Your task to perform on an android device: Go to wifi settings Image 0: 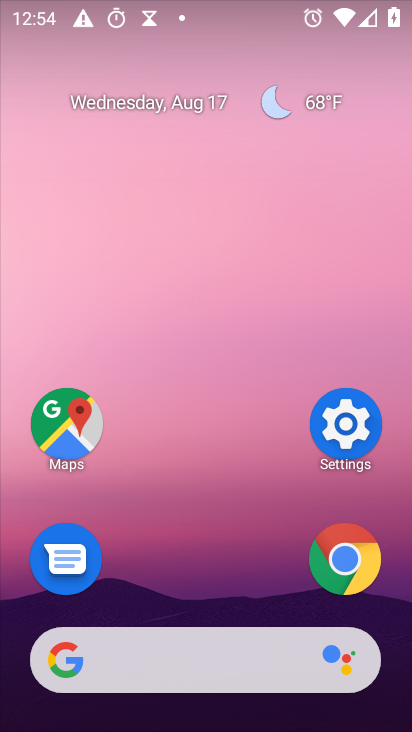
Step 0: click (354, 426)
Your task to perform on an android device: Go to wifi settings Image 1: 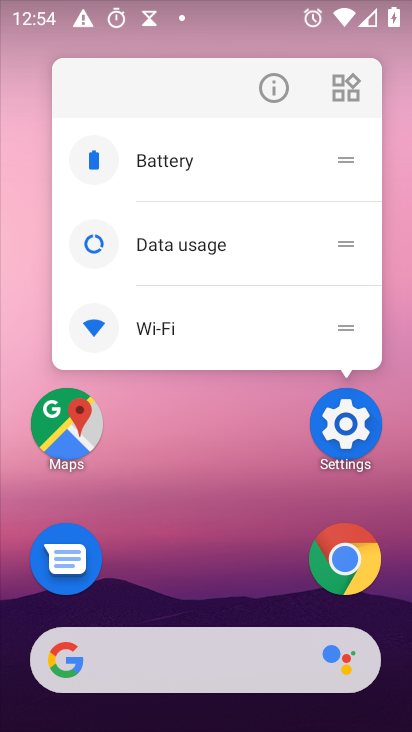
Step 1: click (340, 422)
Your task to perform on an android device: Go to wifi settings Image 2: 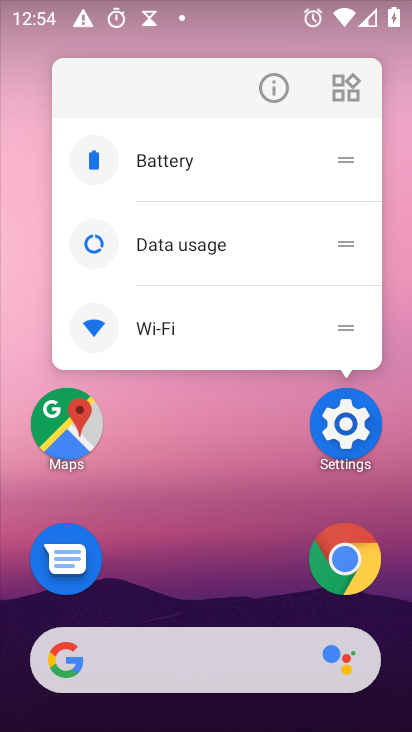
Step 2: click (355, 426)
Your task to perform on an android device: Go to wifi settings Image 3: 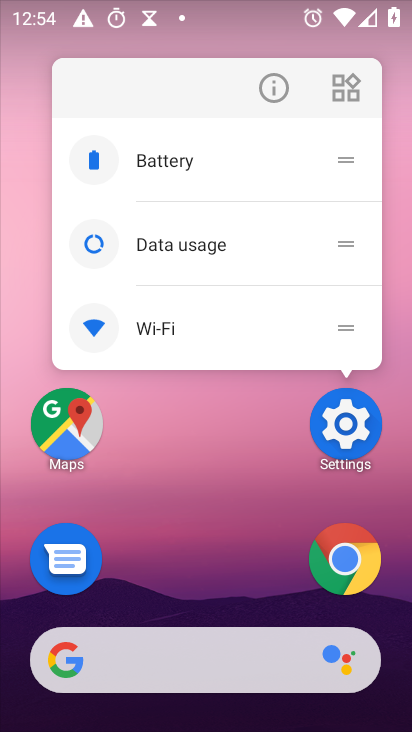
Step 3: click (355, 429)
Your task to perform on an android device: Go to wifi settings Image 4: 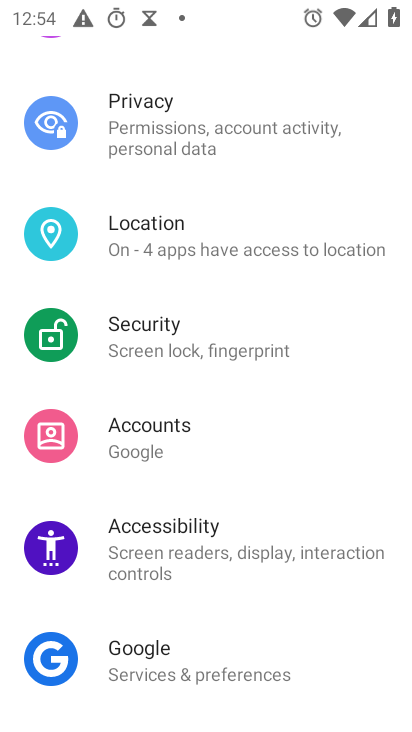
Step 4: drag from (320, 205) to (356, 627)
Your task to perform on an android device: Go to wifi settings Image 5: 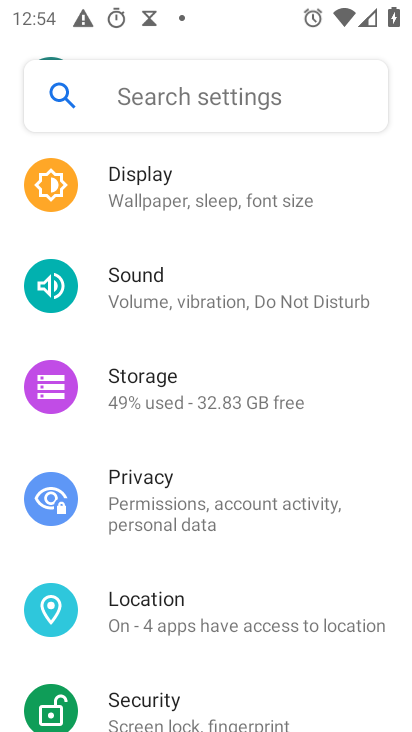
Step 5: drag from (322, 188) to (328, 632)
Your task to perform on an android device: Go to wifi settings Image 6: 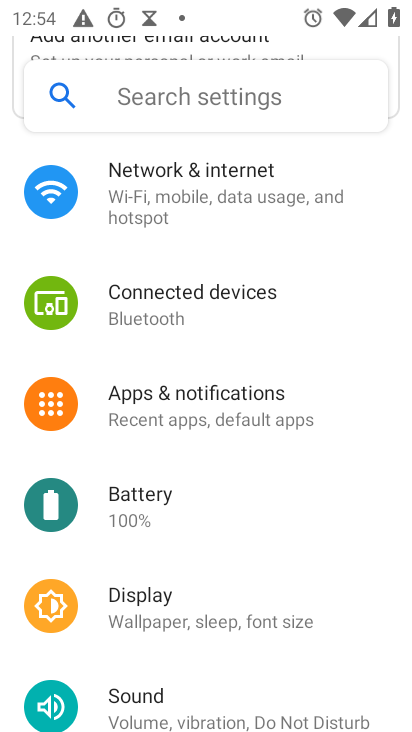
Step 6: drag from (253, 261) to (310, 688)
Your task to perform on an android device: Go to wifi settings Image 7: 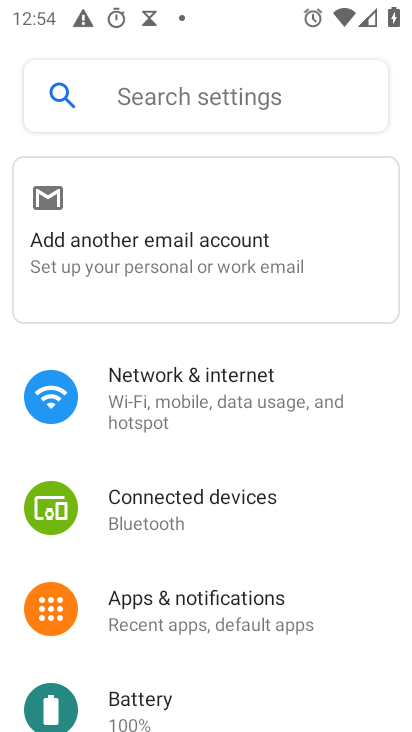
Step 7: click (210, 399)
Your task to perform on an android device: Go to wifi settings Image 8: 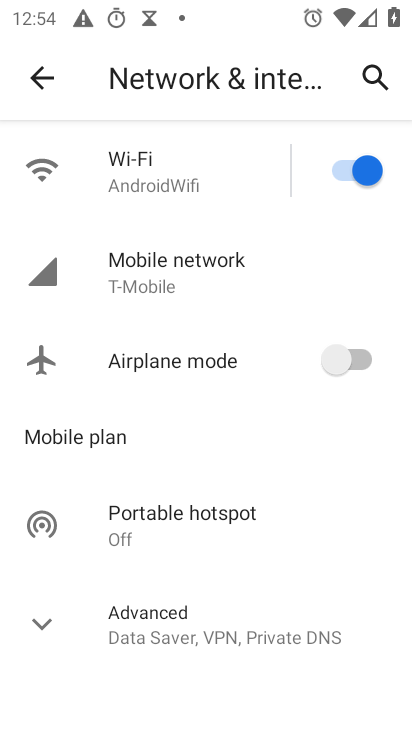
Step 8: click (127, 177)
Your task to perform on an android device: Go to wifi settings Image 9: 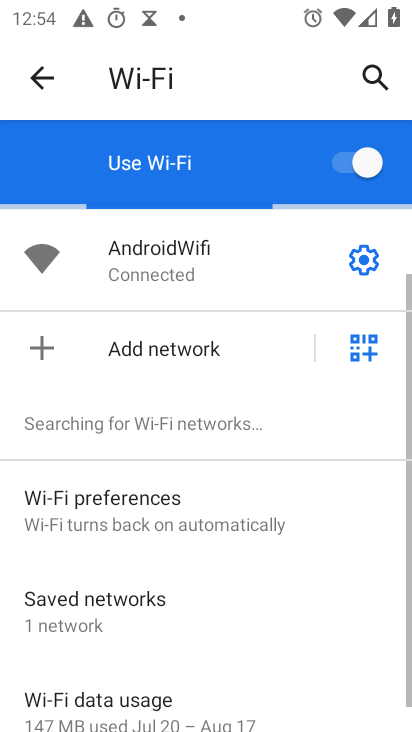
Step 9: task complete